Your task to perform on an android device: change the clock display to analog Image 0: 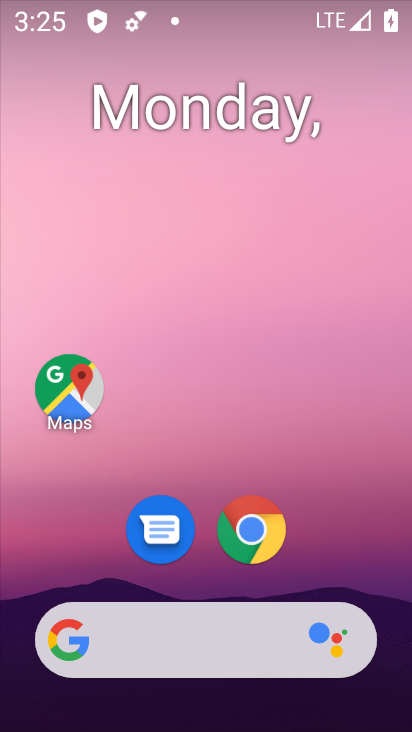
Step 0: drag from (329, 577) to (402, 262)
Your task to perform on an android device: change the clock display to analog Image 1: 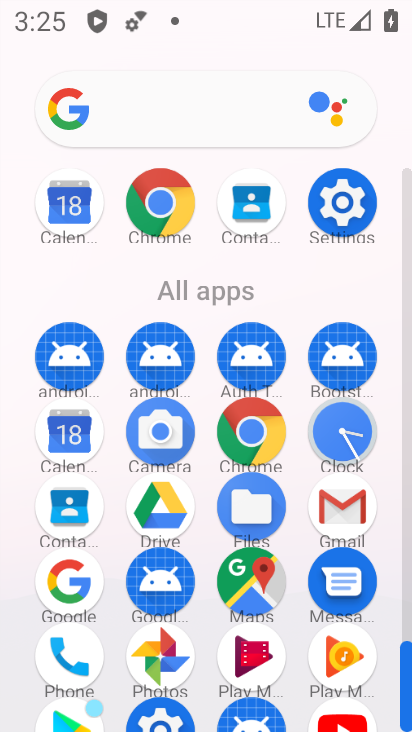
Step 1: click (331, 441)
Your task to perform on an android device: change the clock display to analog Image 2: 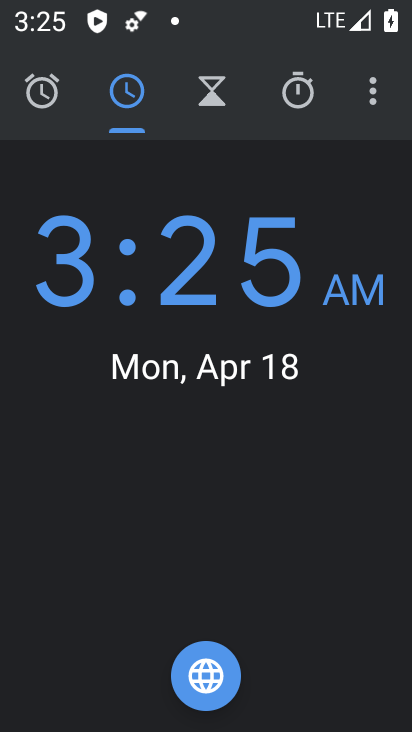
Step 2: click (381, 99)
Your task to perform on an android device: change the clock display to analog Image 3: 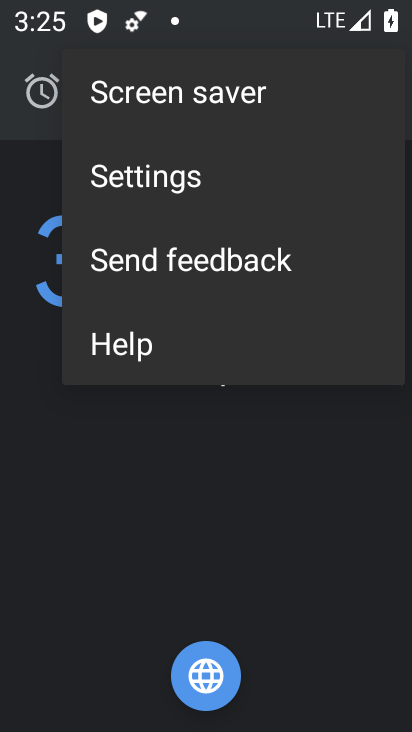
Step 3: click (126, 180)
Your task to perform on an android device: change the clock display to analog Image 4: 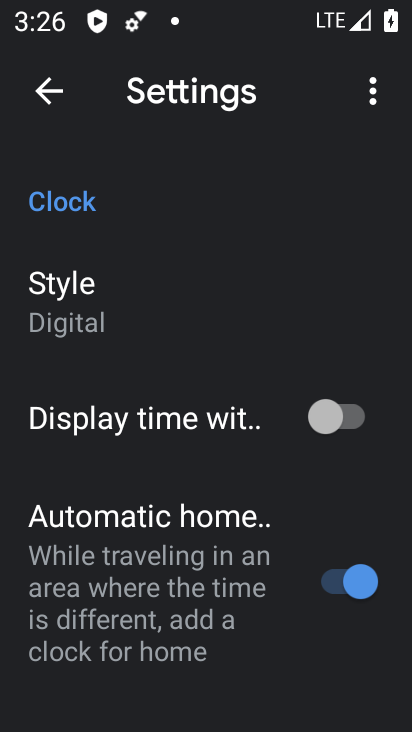
Step 4: click (97, 313)
Your task to perform on an android device: change the clock display to analog Image 5: 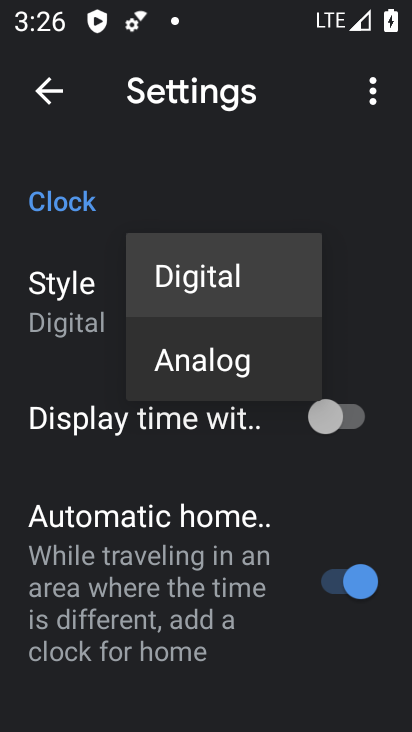
Step 5: click (178, 361)
Your task to perform on an android device: change the clock display to analog Image 6: 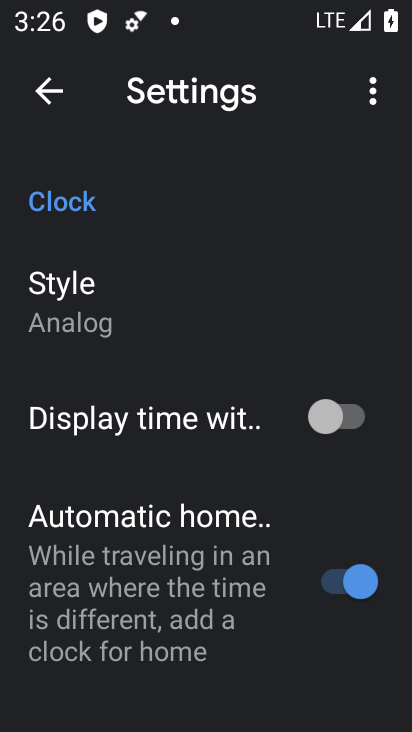
Step 6: task complete